Your task to perform on an android device: read, delete, or share a saved page in the chrome app Image 0: 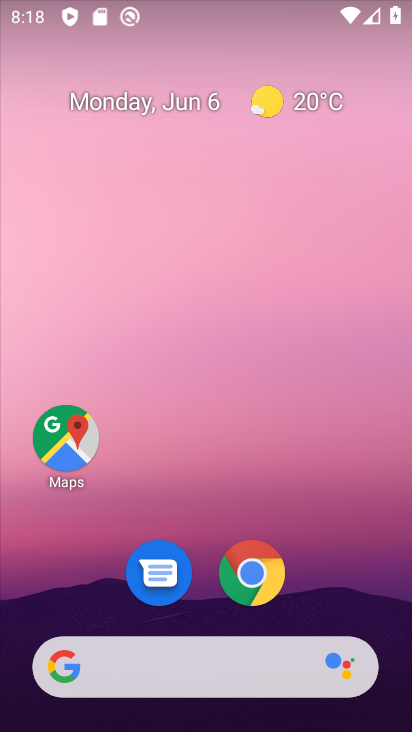
Step 0: click (240, 567)
Your task to perform on an android device: read, delete, or share a saved page in the chrome app Image 1: 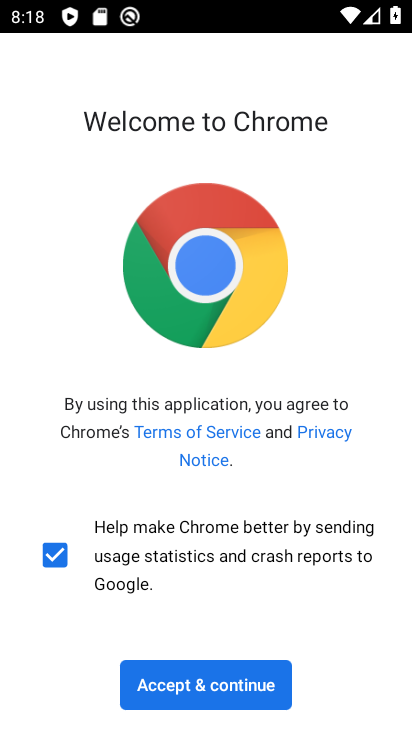
Step 1: click (243, 692)
Your task to perform on an android device: read, delete, or share a saved page in the chrome app Image 2: 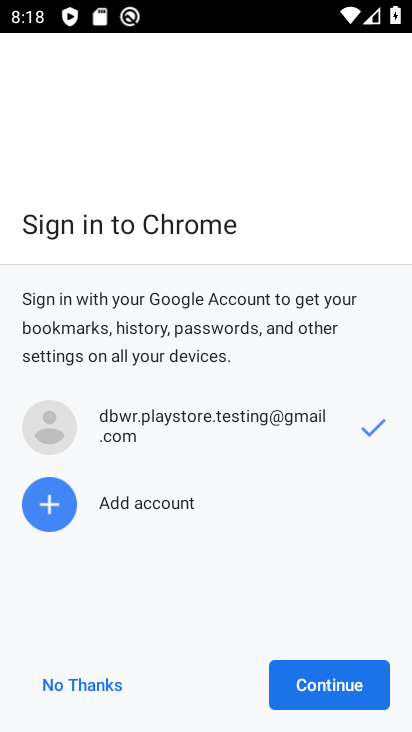
Step 2: click (316, 695)
Your task to perform on an android device: read, delete, or share a saved page in the chrome app Image 3: 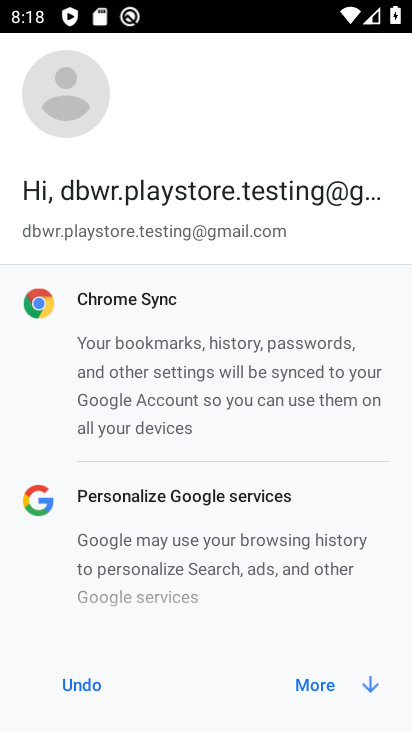
Step 3: click (319, 684)
Your task to perform on an android device: read, delete, or share a saved page in the chrome app Image 4: 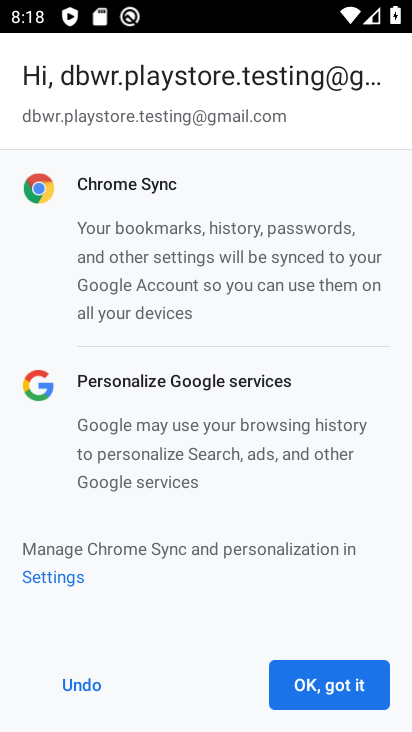
Step 4: click (312, 680)
Your task to perform on an android device: read, delete, or share a saved page in the chrome app Image 5: 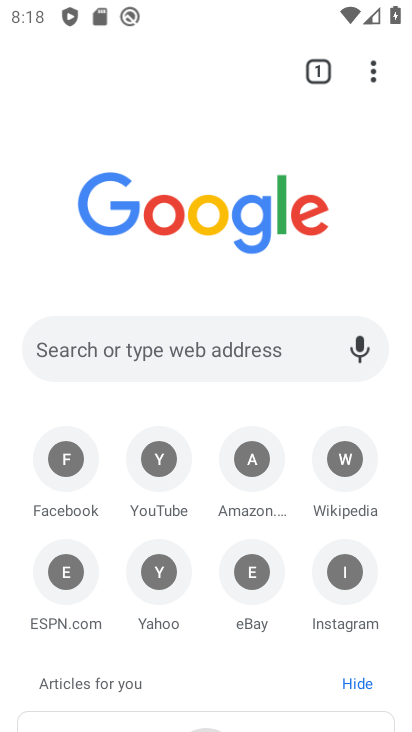
Step 5: drag from (369, 67) to (148, 470)
Your task to perform on an android device: read, delete, or share a saved page in the chrome app Image 6: 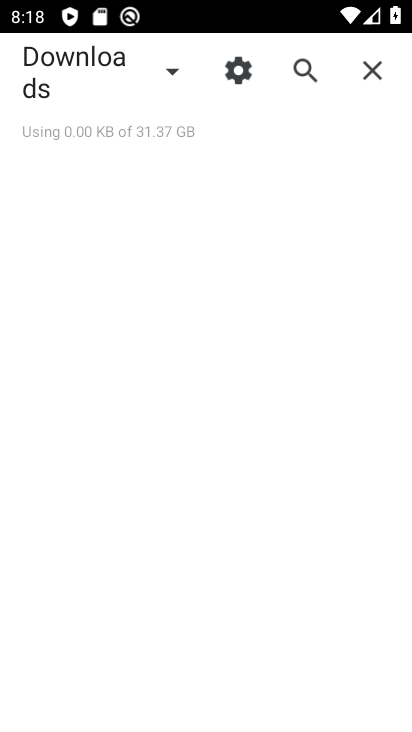
Step 6: click (173, 73)
Your task to perform on an android device: read, delete, or share a saved page in the chrome app Image 7: 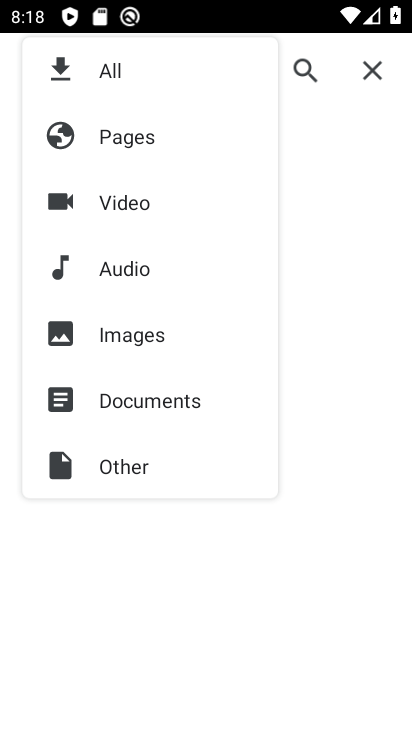
Step 7: click (138, 141)
Your task to perform on an android device: read, delete, or share a saved page in the chrome app Image 8: 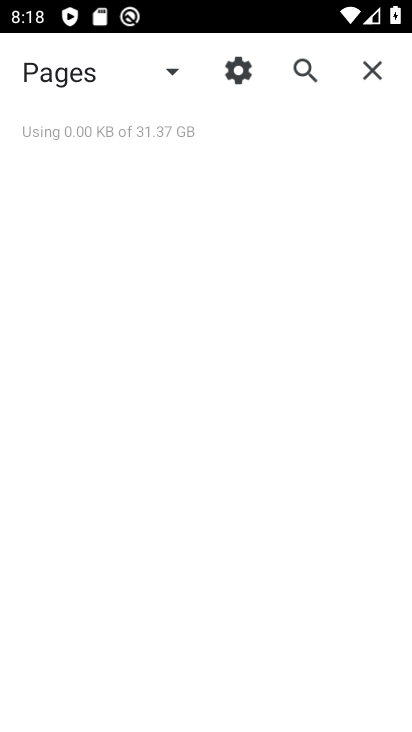
Step 8: task complete